Your task to perform on an android device: Open the calendar and show me this week's events? Image 0: 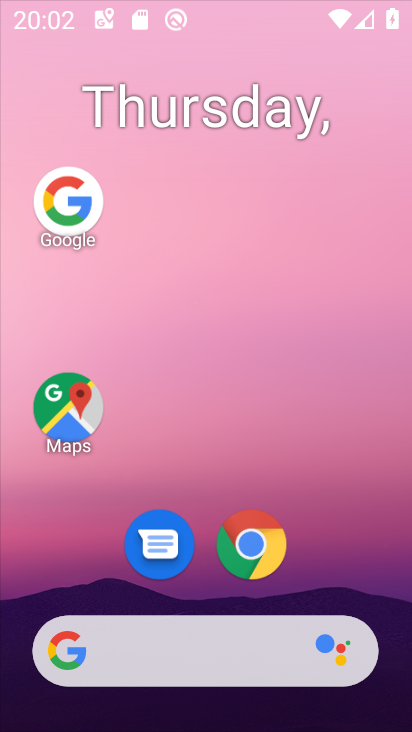
Step 0: click (277, 272)
Your task to perform on an android device: Open the calendar and show me this week's events? Image 1: 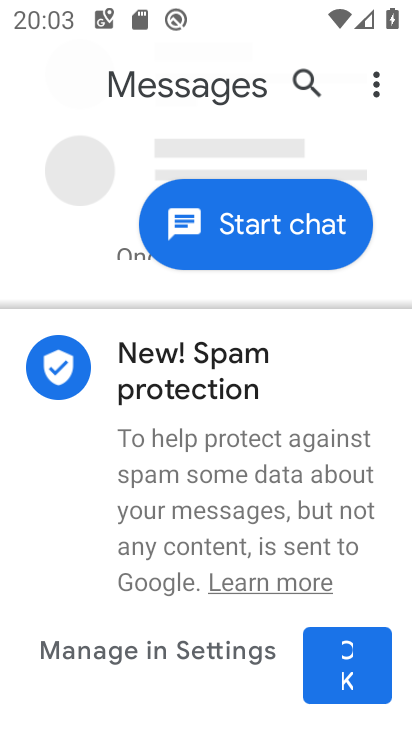
Step 1: press home button
Your task to perform on an android device: Open the calendar and show me this week's events? Image 2: 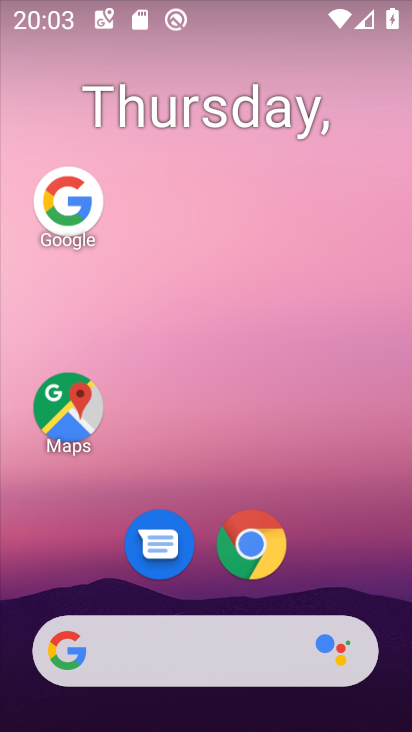
Step 2: drag from (260, 700) to (259, 134)
Your task to perform on an android device: Open the calendar and show me this week's events? Image 3: 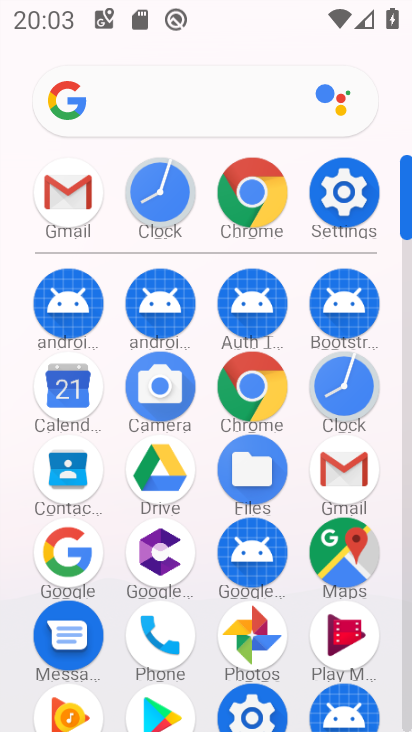
Step 3: click (79, 373)
Your task to perform on an android device: Open the calendar and show me this week's events? Image 4: 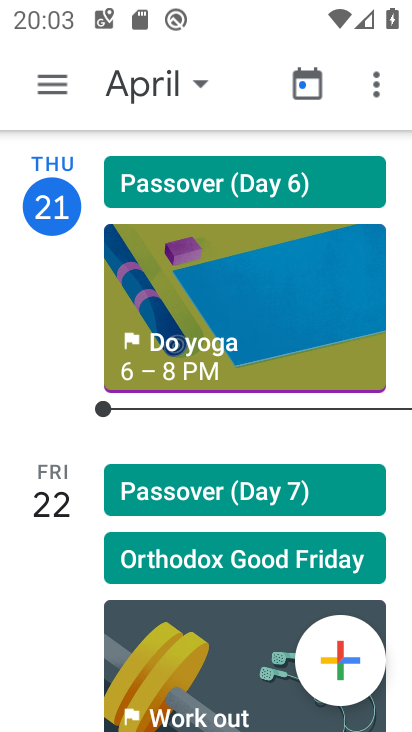
Step 4: click (41, 81)
Your task to perform on an android device: Open the calendar and show me this week's events? Image 5: 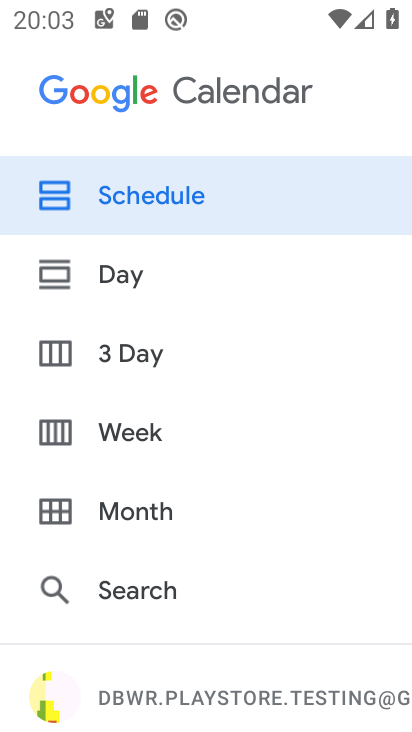
Step 5: click (130, 435)
Your task to perform on an android device: Open the calendar and show me this week's events? Image 6: 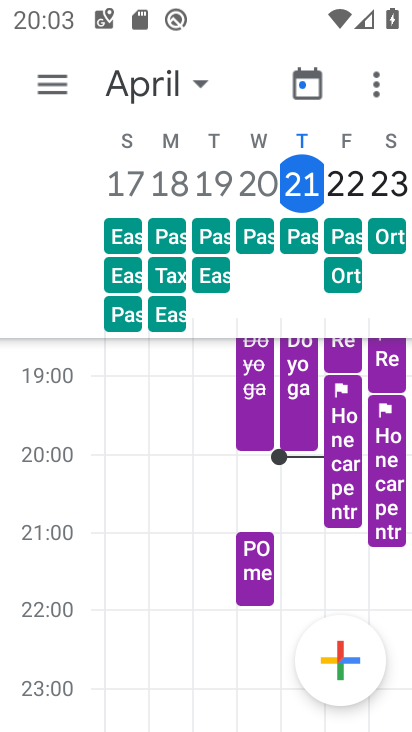
Step 6: task complete